Your task to perform on an android device: Check the weather Image 0: 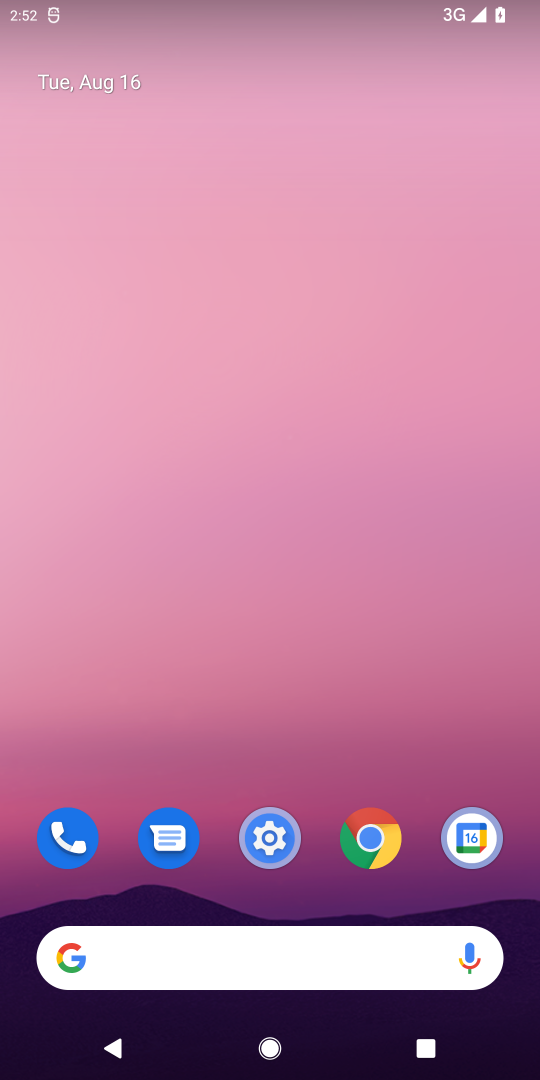
Step 0: press home button
Your task to perform on an android device: Check the weather Image 1: 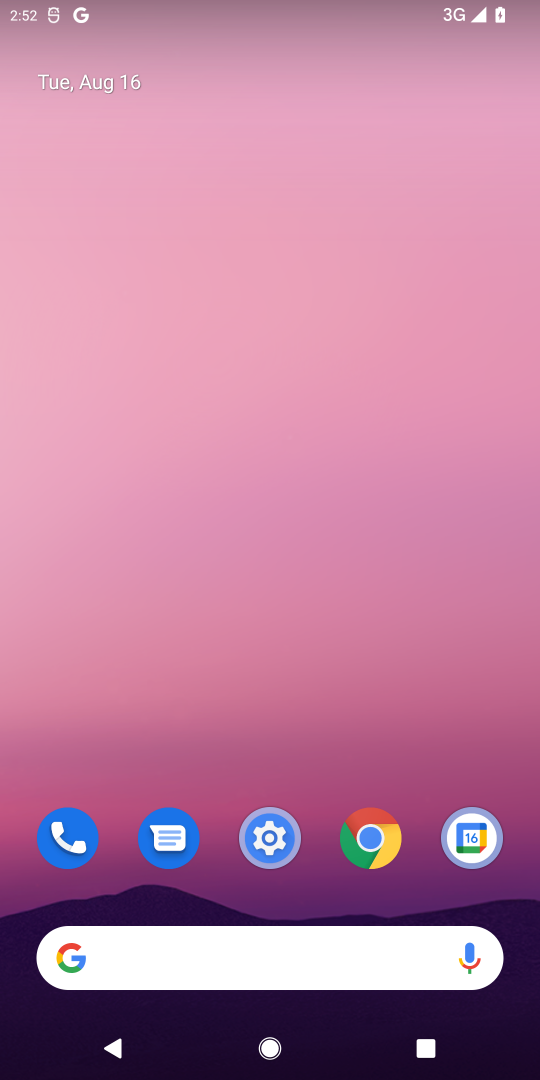
Step 1: click (69, 959)
Your task to perform on an android device: Check the weather Image 2: 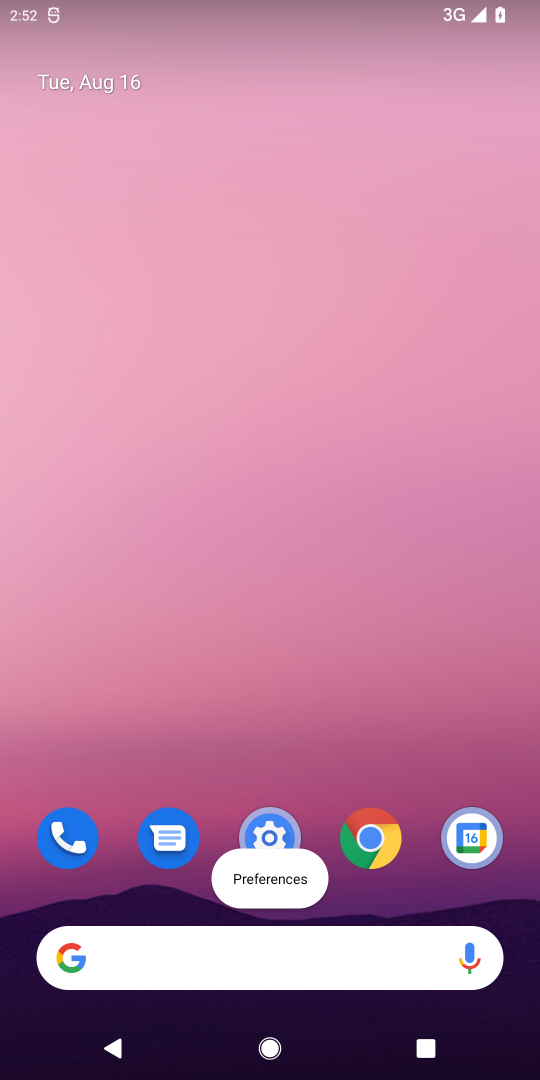
Step 2: click (69, 959)
Your task to perform on an android device: Check the weather Image 3: 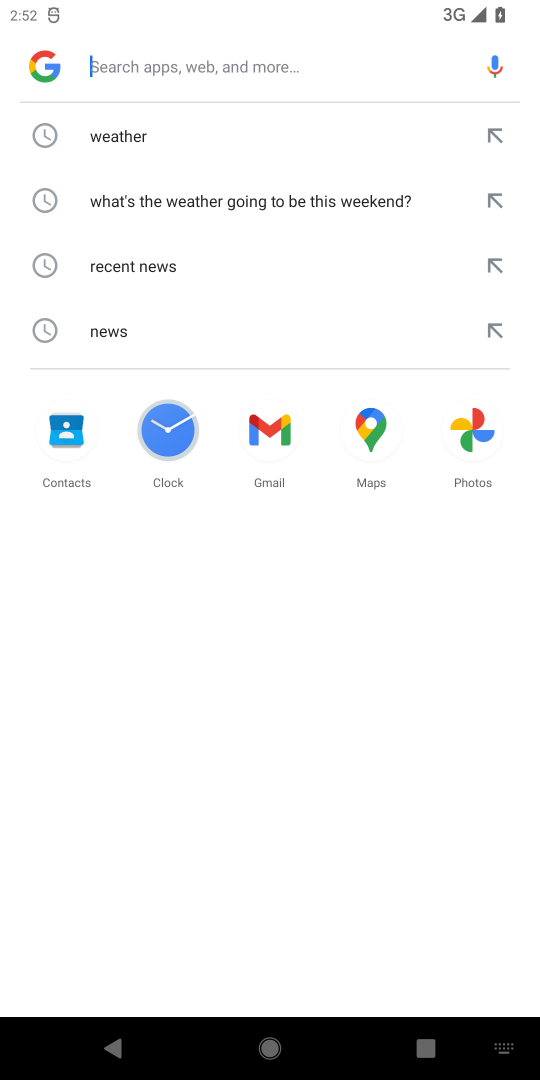
Step 3: click (127, 133)
Your task to perform on an android device: Check the weather Image 4: 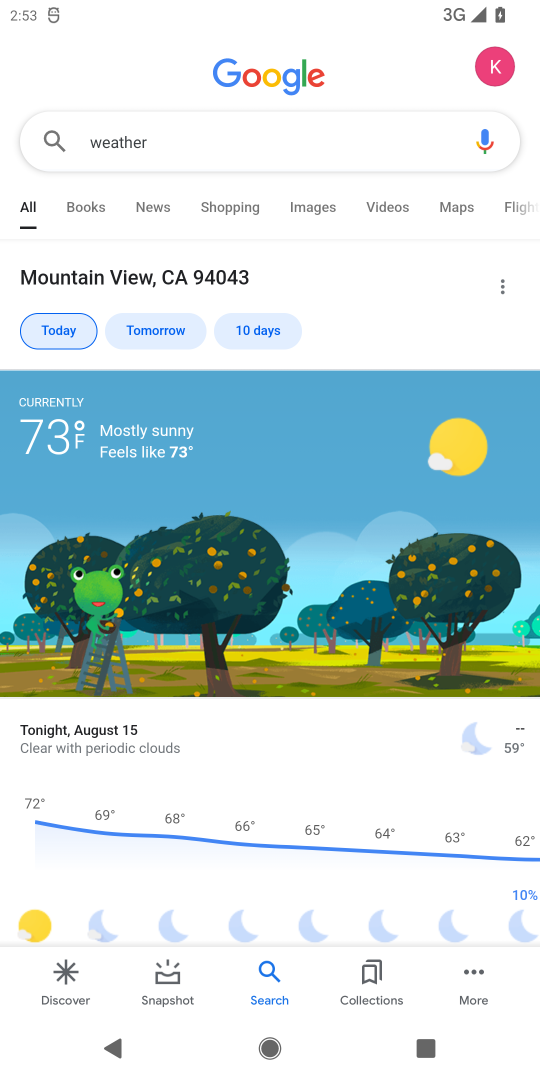
Step 4: task complete